Your task to perform on an android device: refresh tabs in the chrome app Image 0: 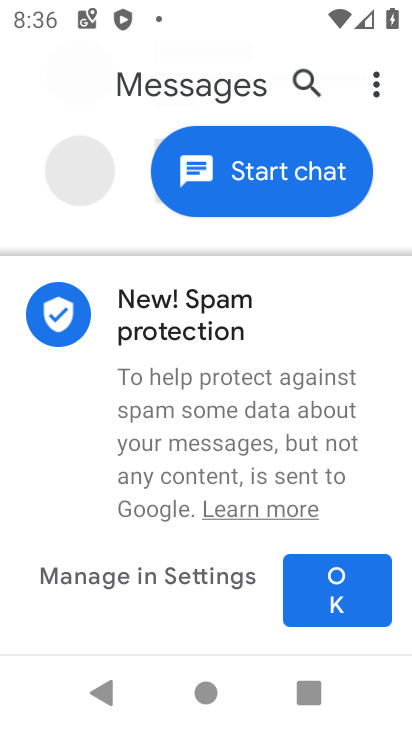
Step 0: press home button
Your task to perform on an android device: refresh tabs in the chrome app Image 1: 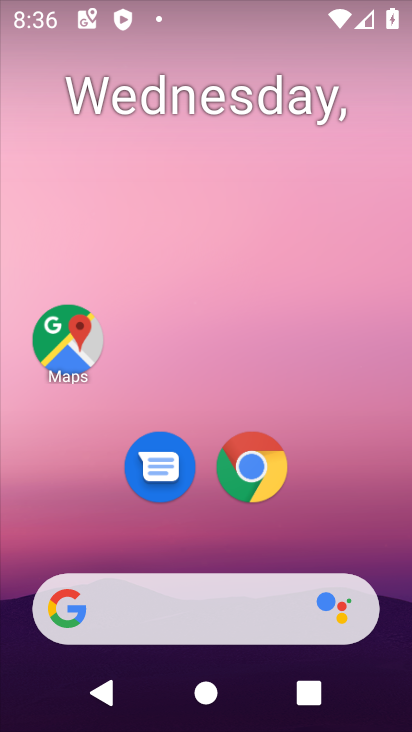
Step 1: drag from (365, 581) to (207, 134)
Your task to perform on an android device: refresh tabs in the chrome app Image 2: 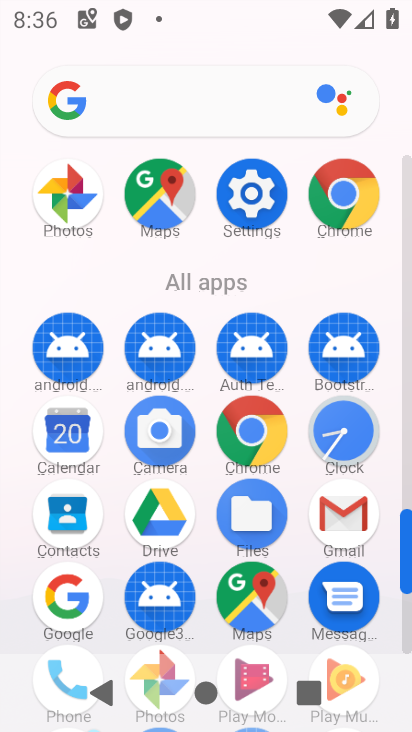
Step 2: click (335, 195)
Your task to perform on an android device: refresh tabs in the chrome app Image 3: 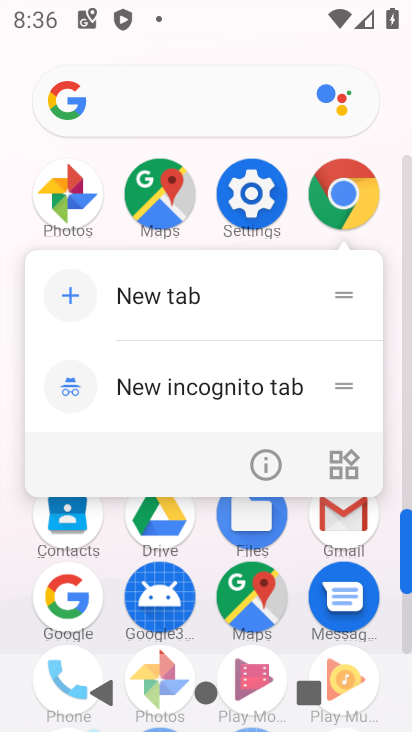
Step 3: click (336, 196)
Your task to perform on an android device: refresh tabs in the chrome app Image 4: 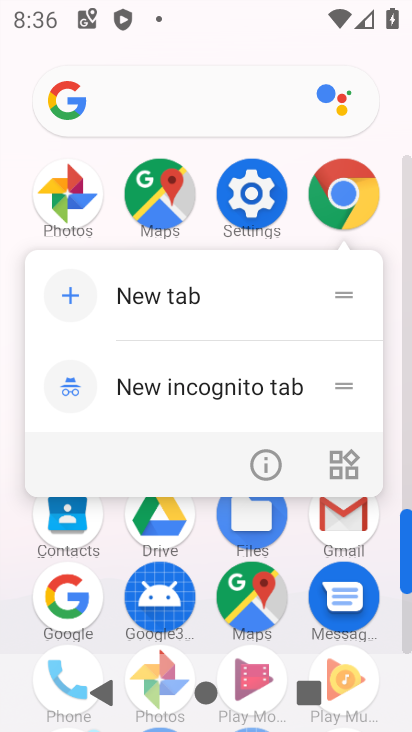
Step 4: click (349, 217)
Your task to perform on an android device: refresh tabs in the chrome app Image 5: 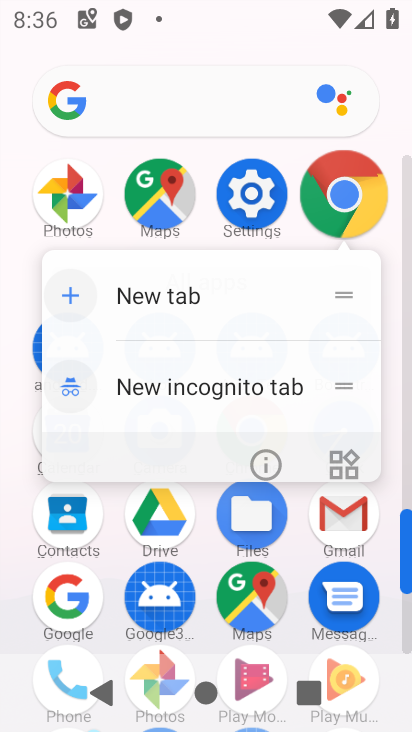
Step 5: click (342, 198)
Your task to perform on an android device: refresh tabs in the chrome app Image 6: 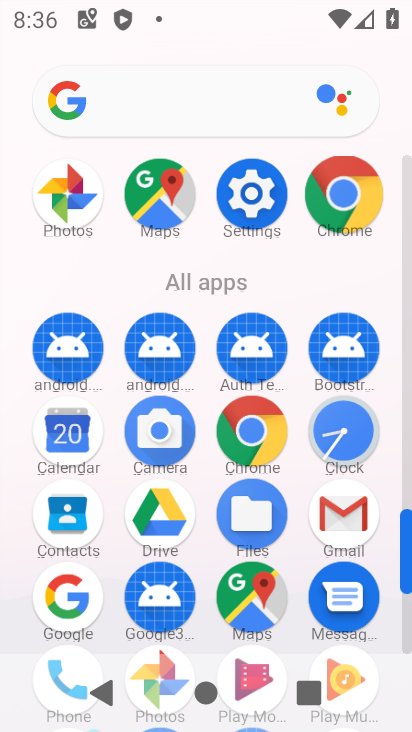
Step 6: click (350, 212)
Your task to perform on an android device: refresh tabs in the chrome app Image 7: 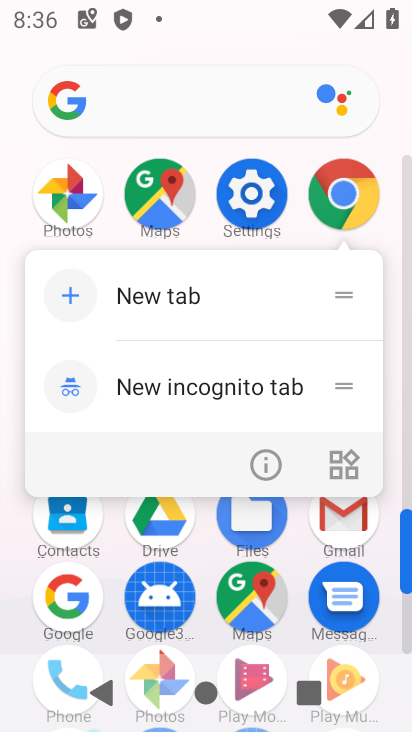
Step 7: click (347, 198)
Your task to perform on an android device: refresh tabs in the chrome app Image 8: 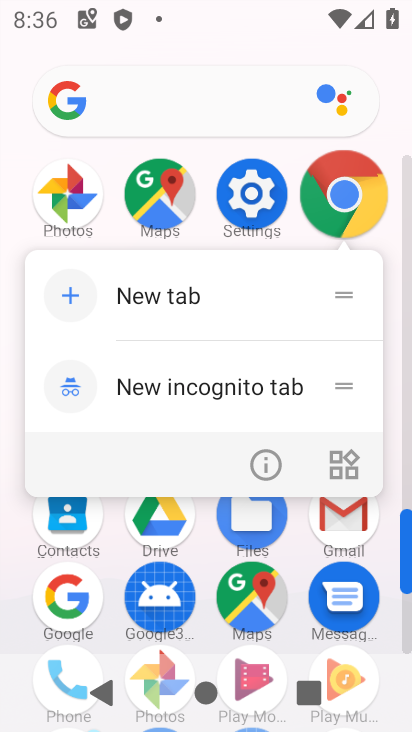
Step 8: click (346, 195)
Your task to perform on an android device: refresh tabs in the chrome app Image 9: 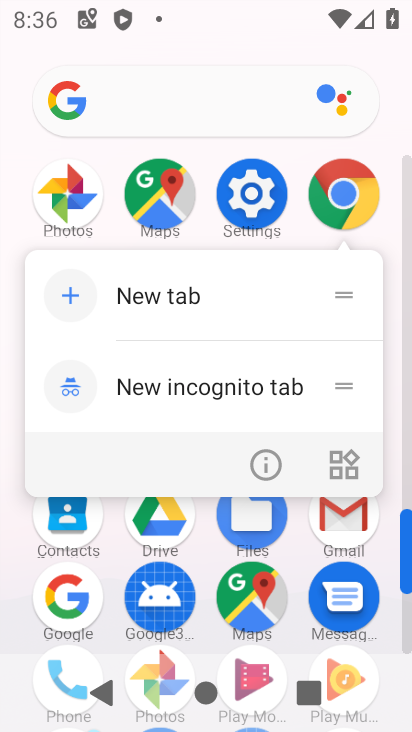
Step 9: click (352, 192)
Your task to perform on an android device: refresh tabs in the chrome app Image 10: 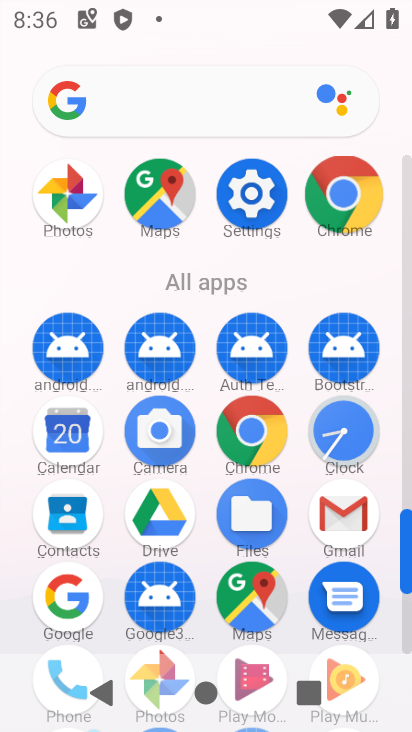
Step 10: click (201, 293)
Your task to perform on an android device: refresh tabs in the chrome app Image 11: 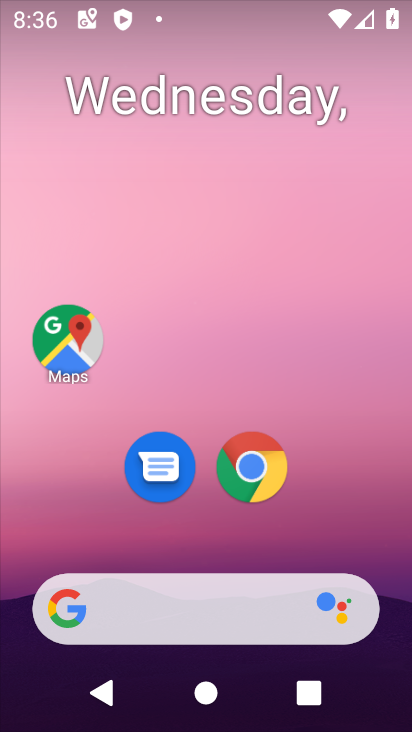
Step 11: drag from (300, 431) to (192, 162)
Your task to perform on an android device: refresh tabs in the chrome app Image 12: 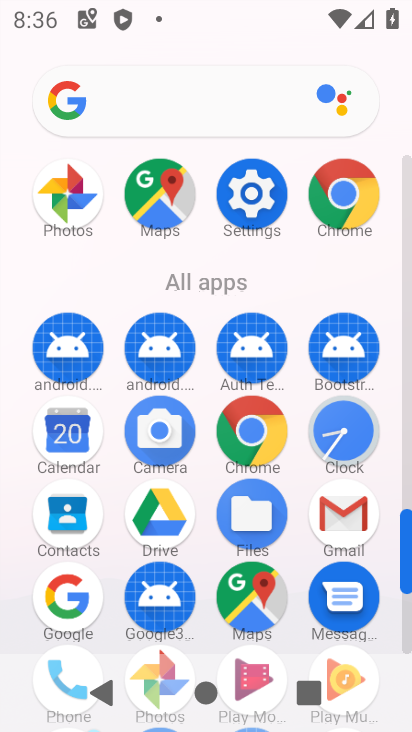
Step 12: click (342, 198)
Your task to perform on an android device: refresh tabs in the chrome app Image 13: 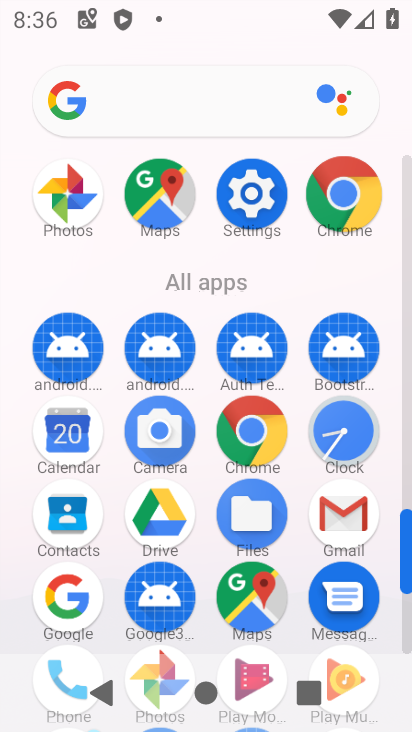
Step 13: click (346, 197)
Your task to perform on an android device: refresh tabs in the chrome app Image 14: 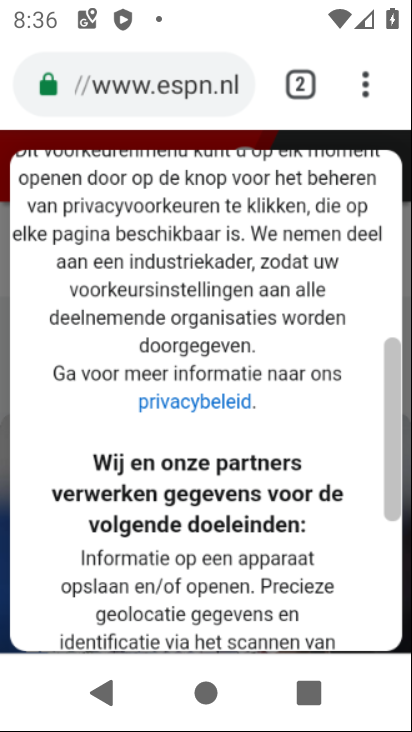
Step 14: click (348, 197)
Your task to perform on an android device: refresh tabs in the chrome app Image 15: 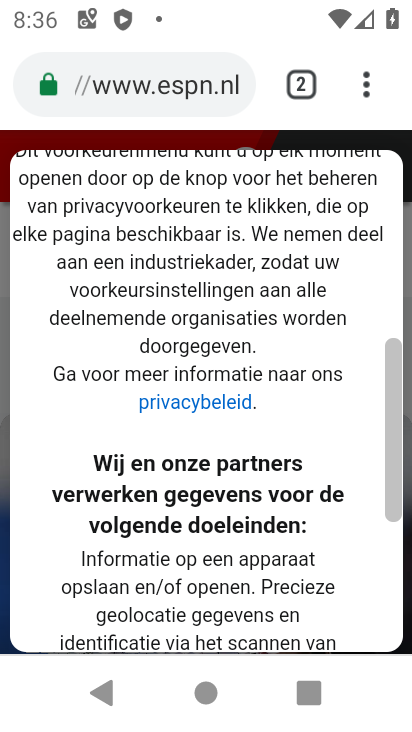
Step 15: drag from (366, 69) to (71, 158)
Your task to perform on an android device: refresh tabs in the chrome app Image 16: 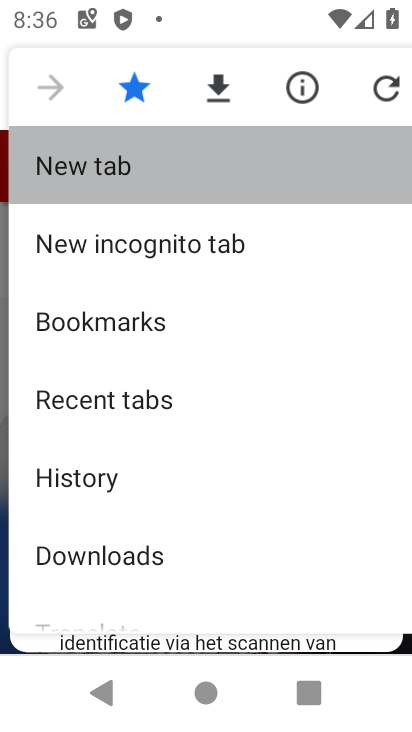
Step 16: click (71, 158)
Your task to perform on an android device: refresh tabs in the chrome app Image 17: 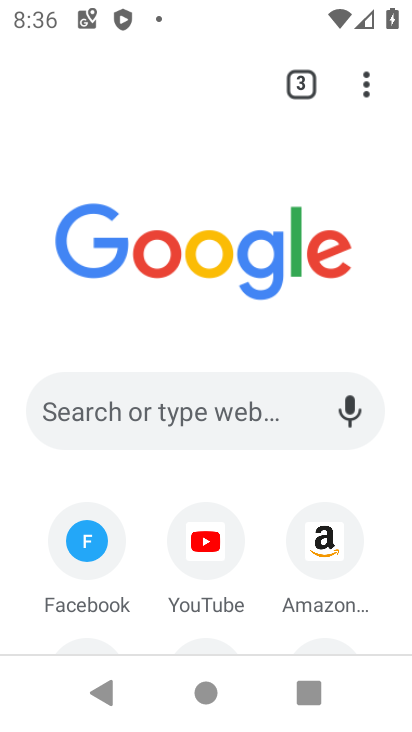
Step 17: click (363, 81)
Your task to perform on an android device: refresh tabs in the chrome app Image 18: 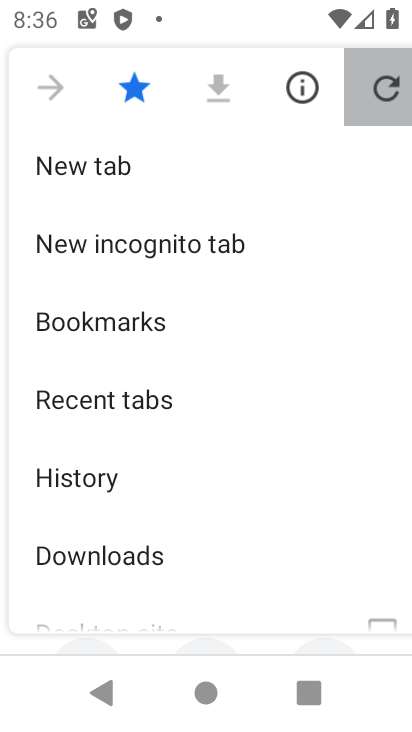
Step 18: click (383, 92)
Your task to perform on an android device: refresh tabs in the chrome app Image 19: 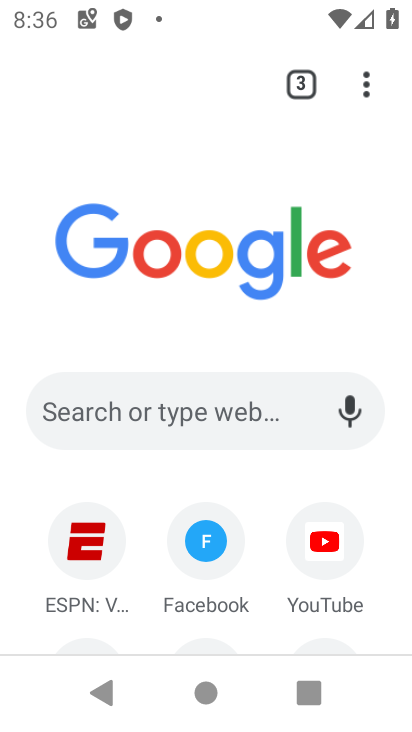
Step 19: task complete